Your task to perform on an android device: allow notifications from all sites in the chrome app Image 0: 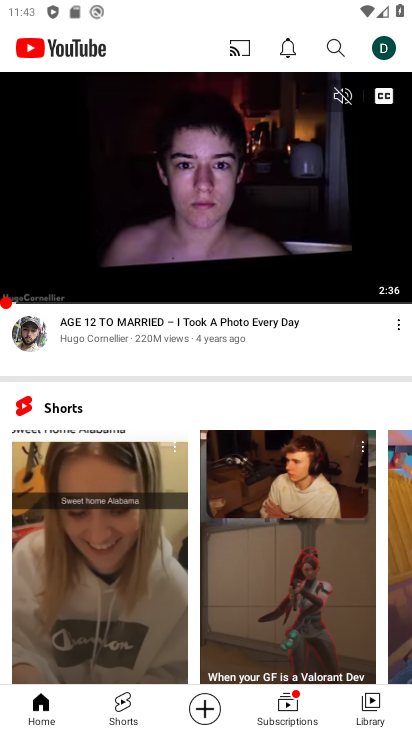
Step 0: press home button
Your task to perform on an android device: allow notifications from all sites in the chrome app Image 1: 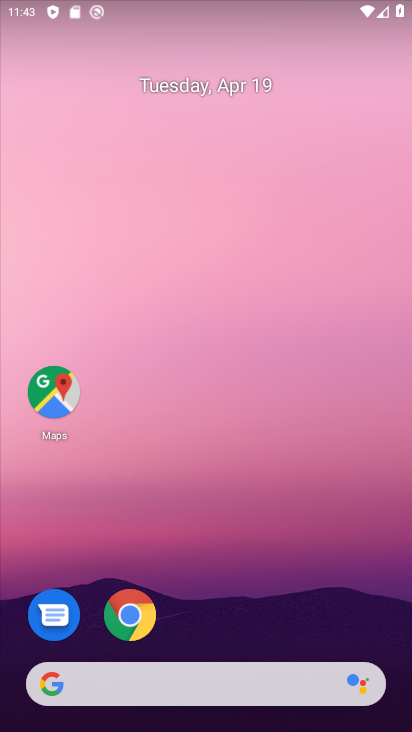
Step 1: click (133, 614)
Your task to perform on an android device: allow notifications from all sites in the chrome app Image 2: 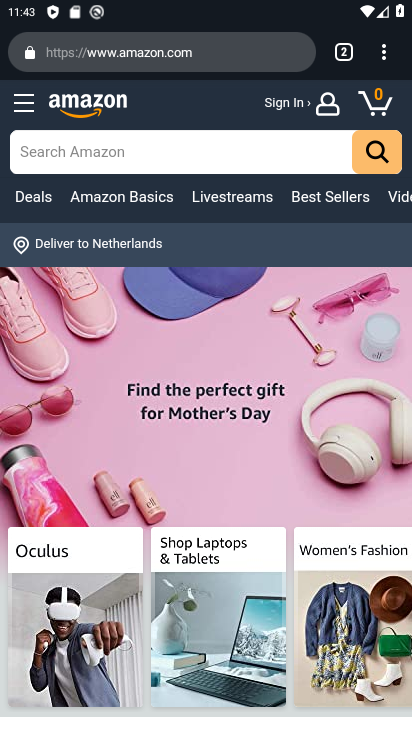
Step 2: click (385, 49)
Your task to perform on an android device: allow notifications from all sites in the chrome app Image 3: 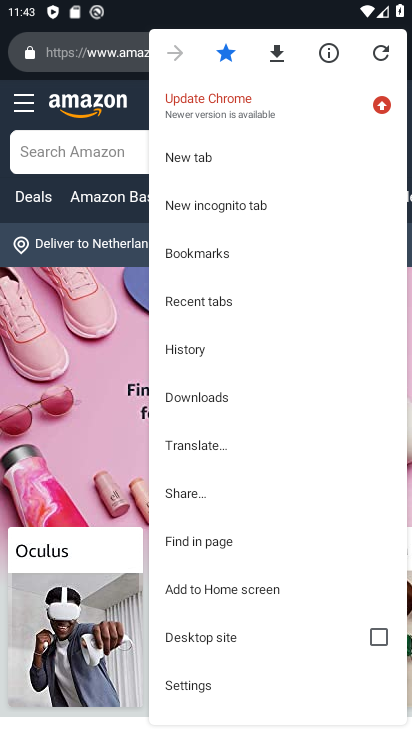
Step 3: click (197, 680)
Your task to perform on an android device: allow notifications from all sites in the chrome app Image 4: 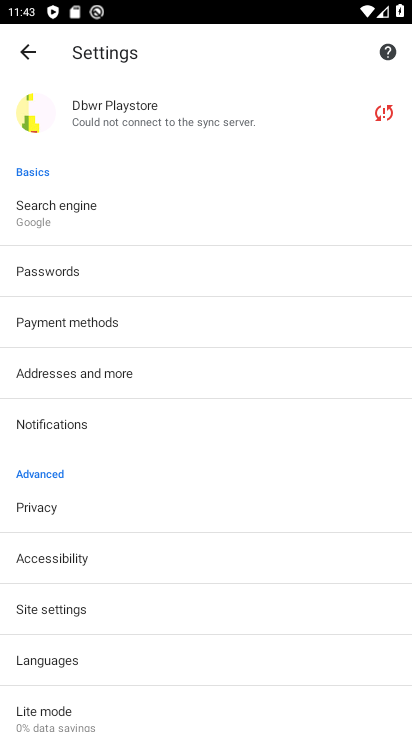
Step 4: drag from (92, 610) to (84, 342)
Your task to perform on an android device: allow notifications from all sites in the chrome app Image 5: 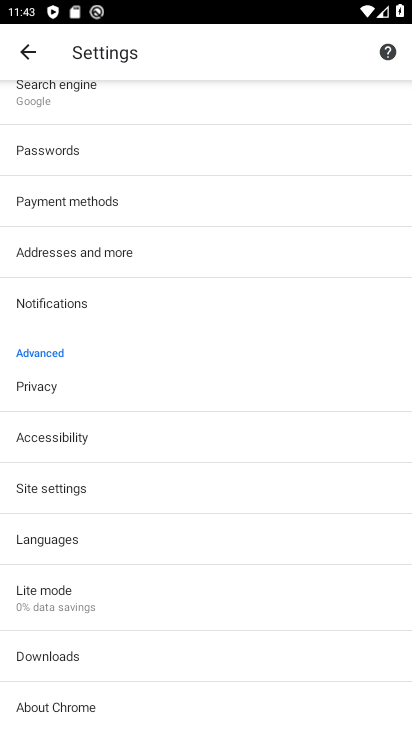
Step 5: drag from (85, 467) to (94, 531)
Your task to perform on an android device: allow notifications from all sites in the chrome app Image 6: 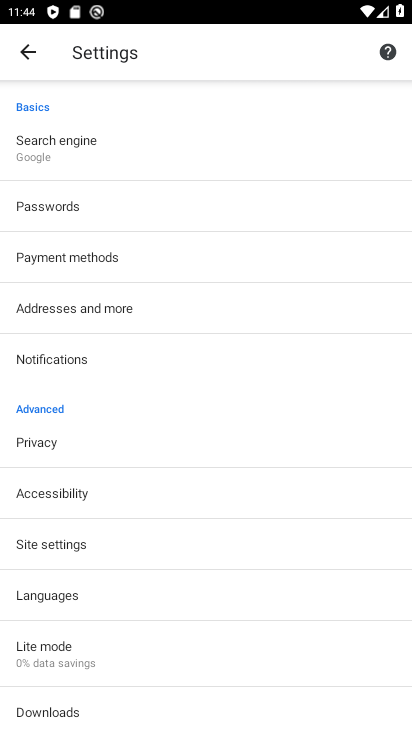
Step 6: click (75, 548)
Your task to perform on an android device: allow notifications from all sites in the chrome app Image 7: 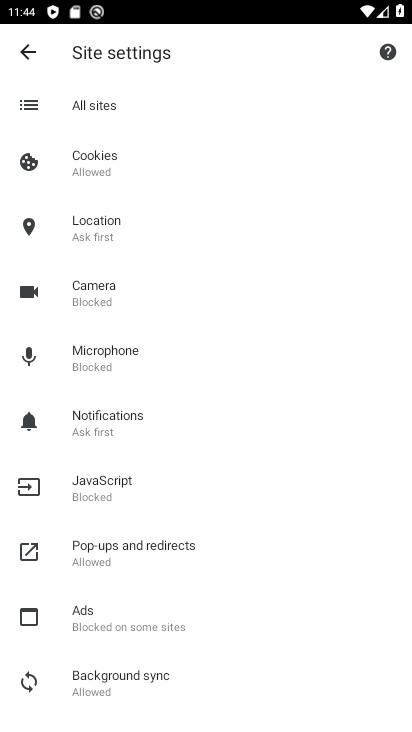
Step 7: click (150, 425)
Your task to perform on an android device: allow notifications from all sites in the chrome app Image 8: 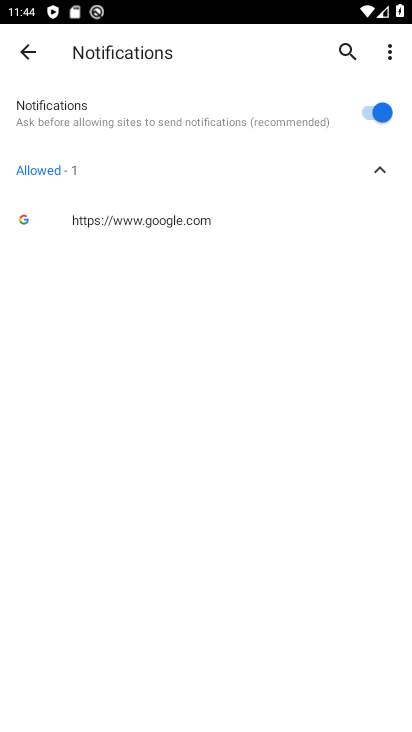
Step 8: task complete